Your task to perform on an android device: Search for vegetarian restaurants on Maps Image 0: 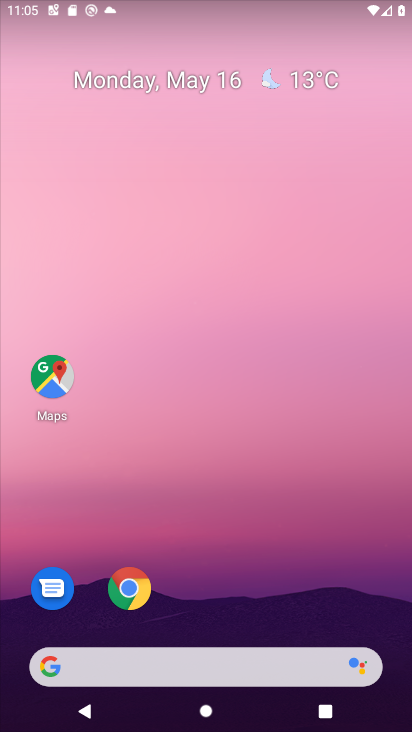
Step 0: click (51, 377)
Your task to perform on an android device: Search for vegetarian restaurants on Maps Image 1: 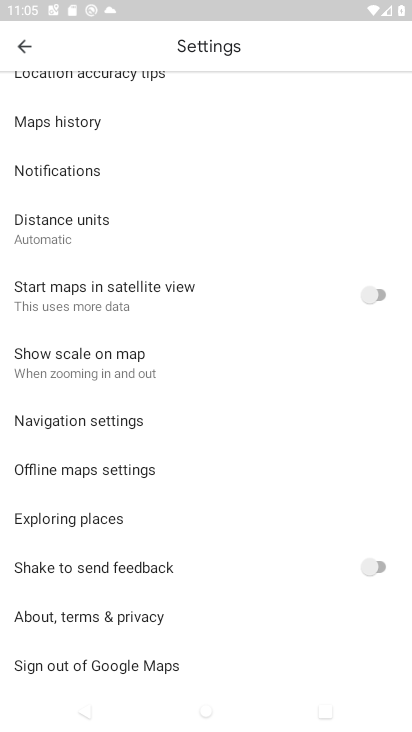
Step 1: click (26, 49)
Your task to perform on an android device: Search for vegetarian restaurants on Maps Image 2: 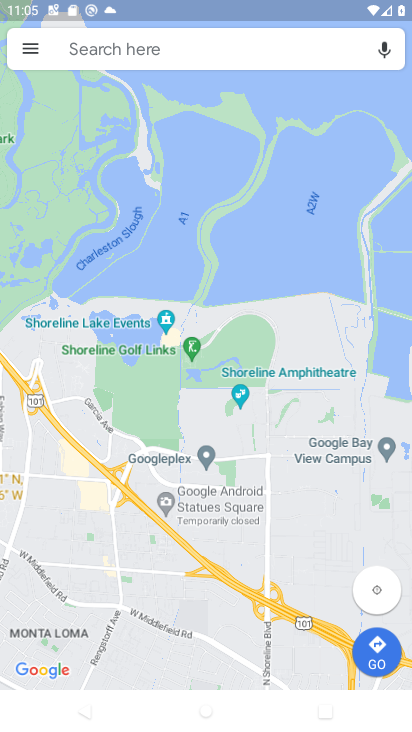
Step 2: click (106, 43)
Your task to perform on an android device: Search for vegetarian restaurants on Maps Image 3: 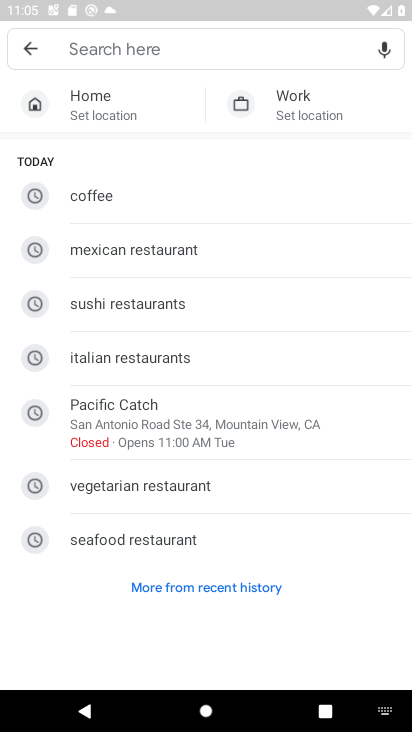
Step 3: click (178, 494)
Your task to perform on an android device: Search for vegetarian restaurants on Maps Image 4: 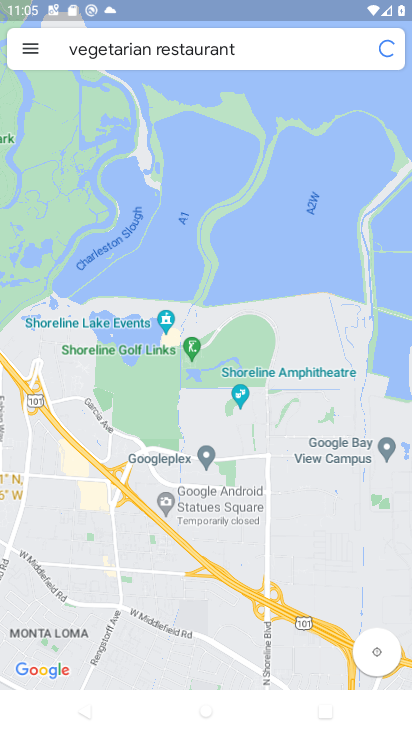
Step 4: task complete